Your task to perform on an android device: Search for Mexican restaurants on Maps Image 0: 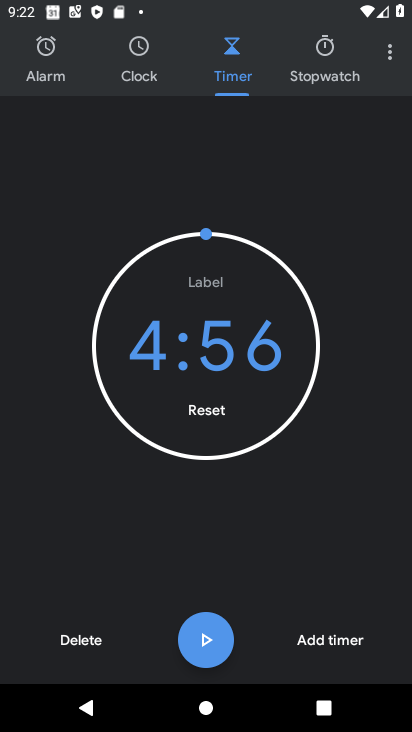
Step 0: press home button
Your task to perform on an android device: Search for Mexican restaurants on Maps Image 1: 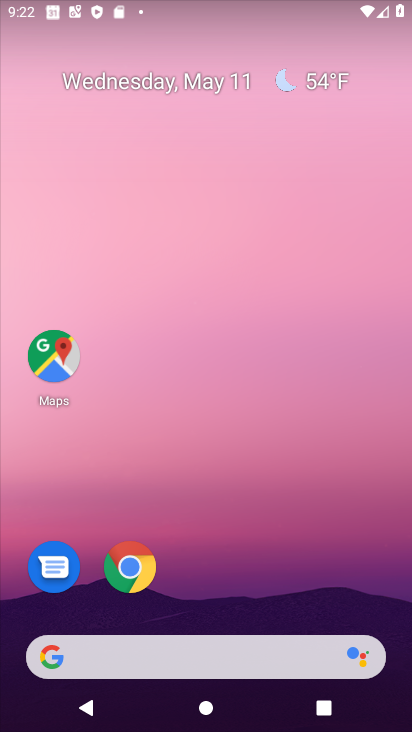
Step 1: click (56, 363)
Your task to perform on an android device: Search for Mexican restaurants on Maps Image 2: 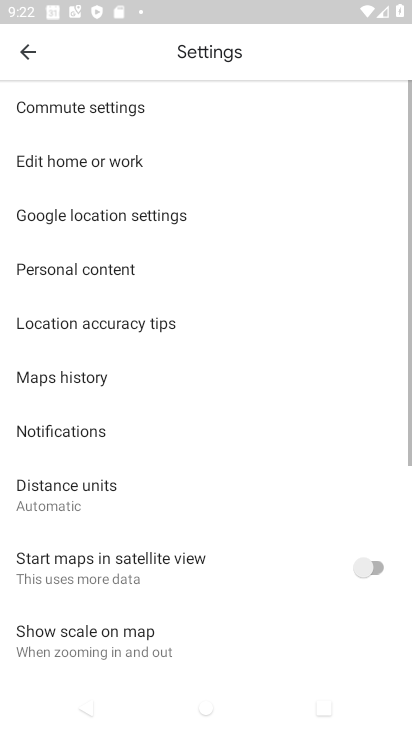
Step 2: click (37, 59)
Your task to perform on an android device: Search for Mexican restaurants on Maps Image 3: 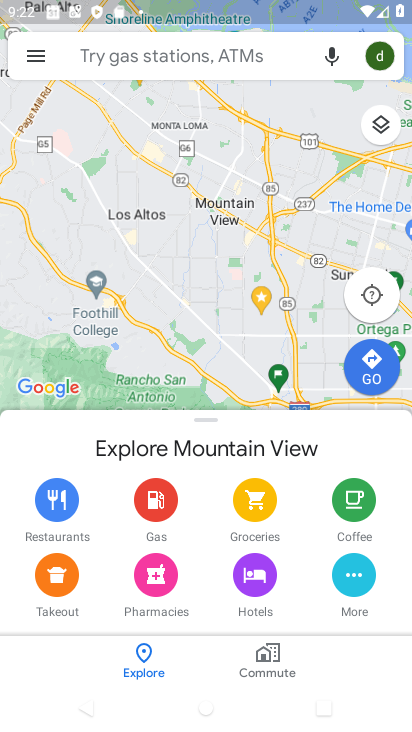
Step 3: click (180, 59)
Your task to perform on an android device: Search for Mexican restaurants on Maps Image 4: 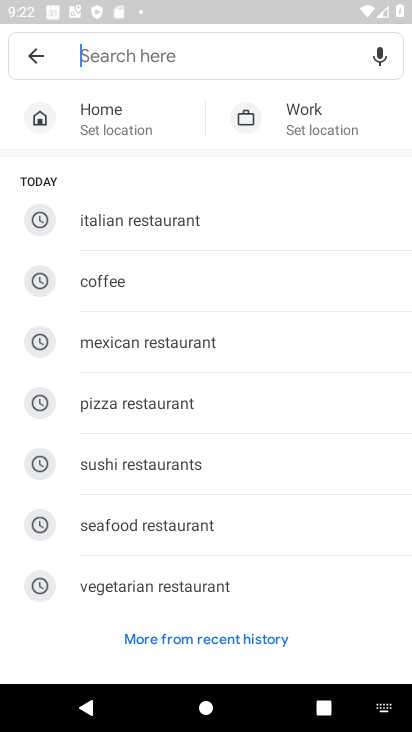
Step 4: type "Mexican restaurants"
Your task to perform on an android device: Search for Mexican restaurants on Maps Image 5: 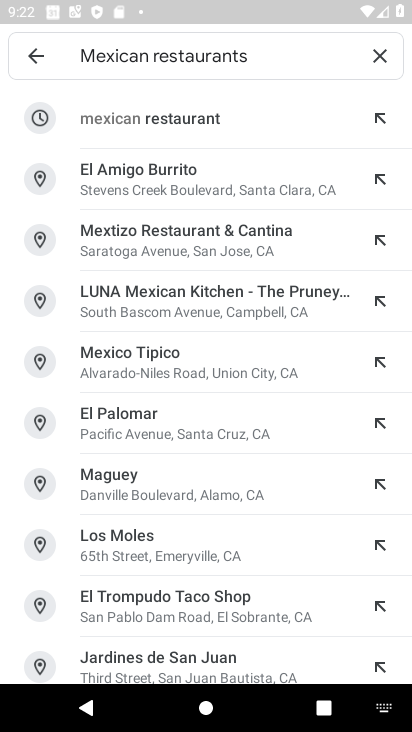
Step 5: click (213, 130)
Your task to perform on an android device: Search for Mexican restaurants on Maps Image 6: 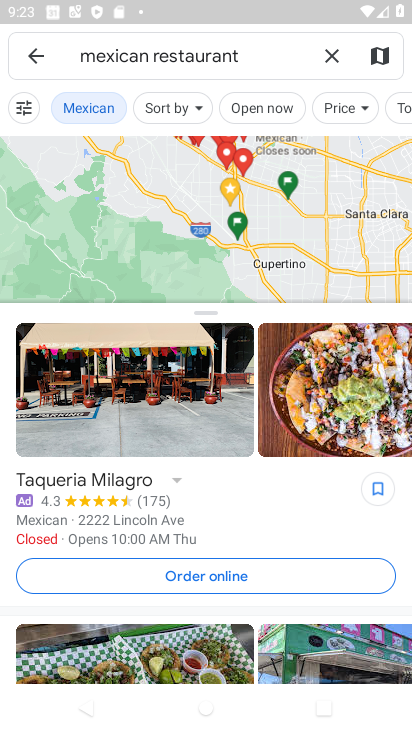
Step 6: task complete